Your task to perform on an android device: What is the capital of the United Kingdom? Image 0: 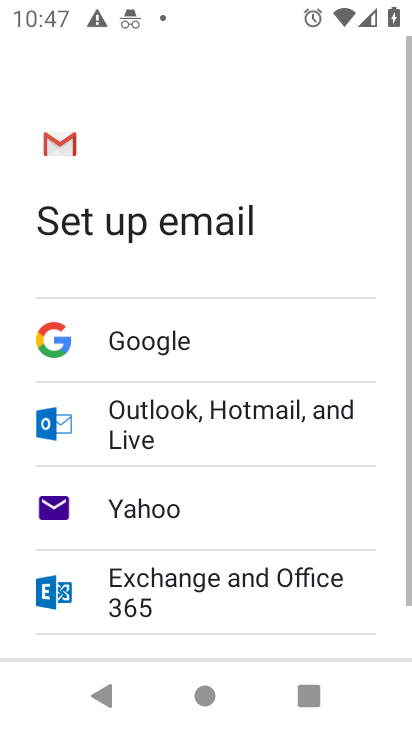
Step 0: press home button
Your task to perform on an android device: What is the capital of the United Kingdom? Image 1: 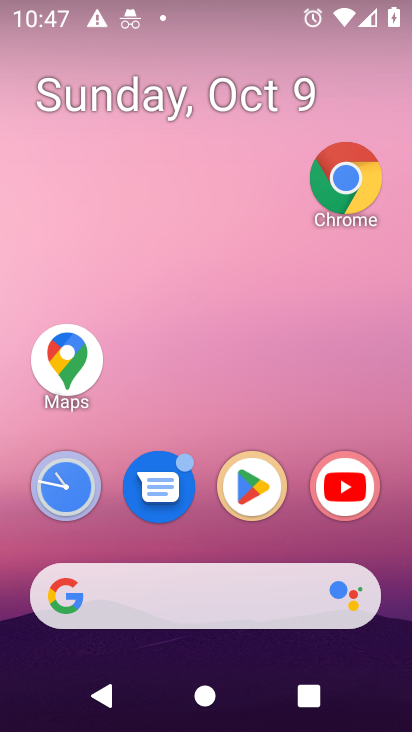
Step 1: drag from (264, 512) to (268, 325)
Your task to perform on an android device: What is the capital of the United Kingdom? Image 2: 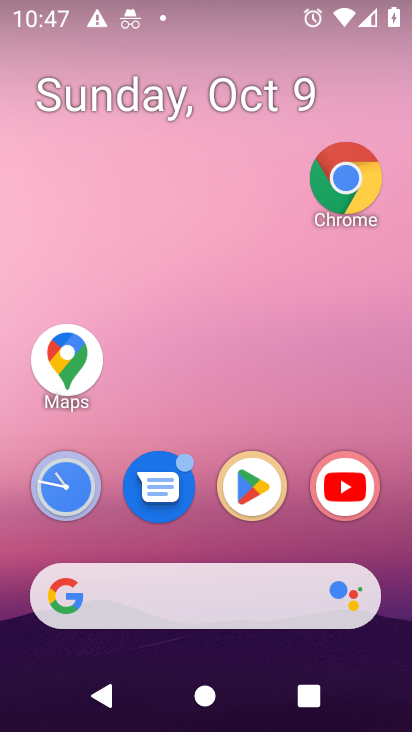
Step 2: drag from (226, 634) to (238, 314)
Your task to perform on an android device: What is the capital of the United Kingdom? Image 3: 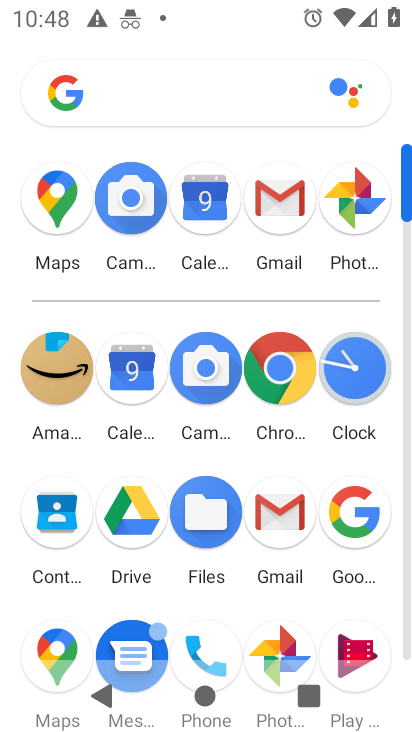
Step 3: click (384, 548)
Your task to perform on an android device: What is the capital of the United Kingdom? Image 4: 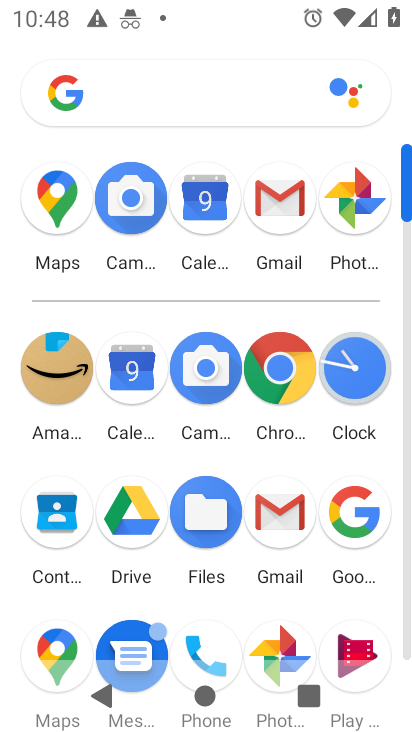
Step 4: click (361, 488)
Your task to perform on an android device: What is the capital of the United Kingdom? Image 5: 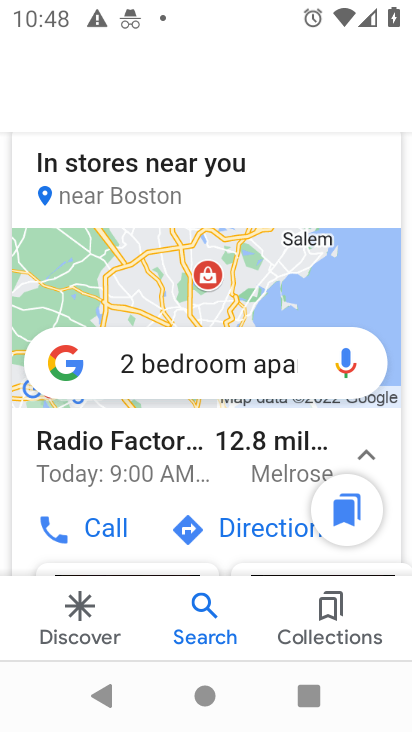
Step 5: click (101, 617)
Your task to perform on an android device: What is the capital of the United Kingdom? Image 6: 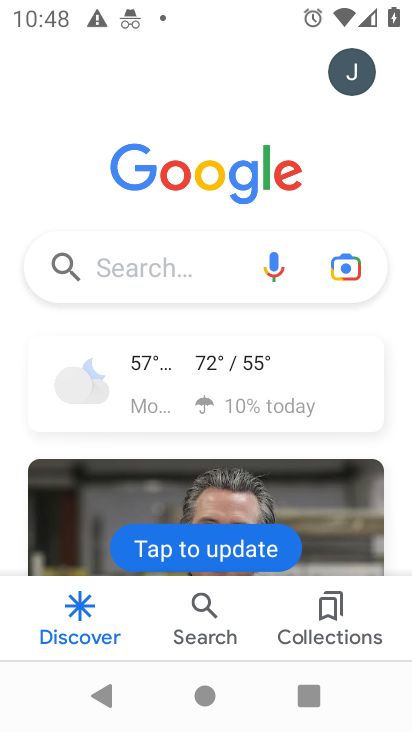
Step 6: click (149, 282)
Your task to perform on an android device: What is the capital of the United Kingdom? Image 7: 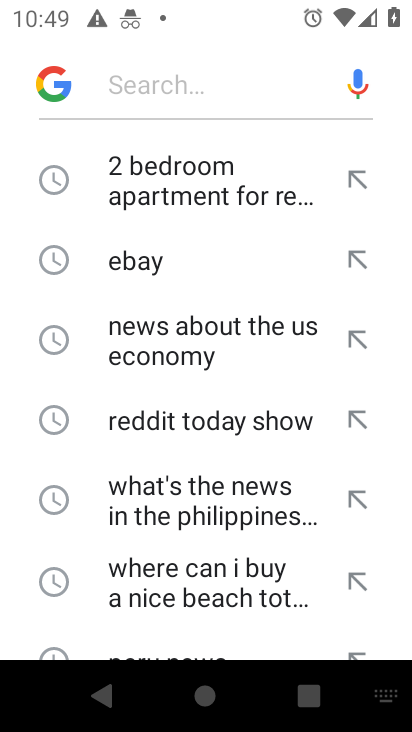
Step 7: type "united kingdom capital"
Your task to perform on an android device: What is the capital of the United Kingdom? Image 8: 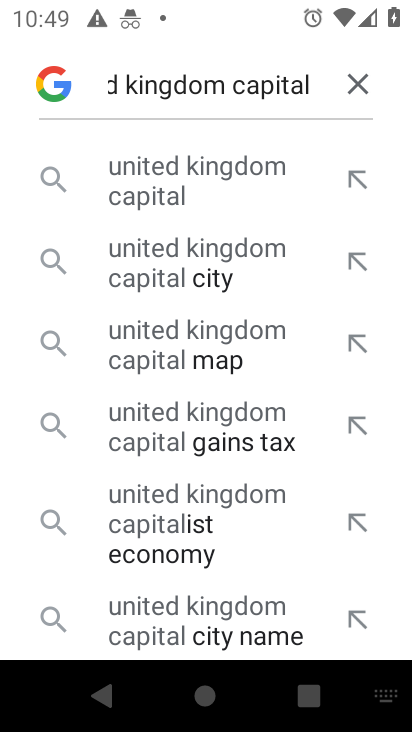
Step 8: click (229, 163)
Your task to perform on an android device: What is the capital of the United Kingdom? Image 9: 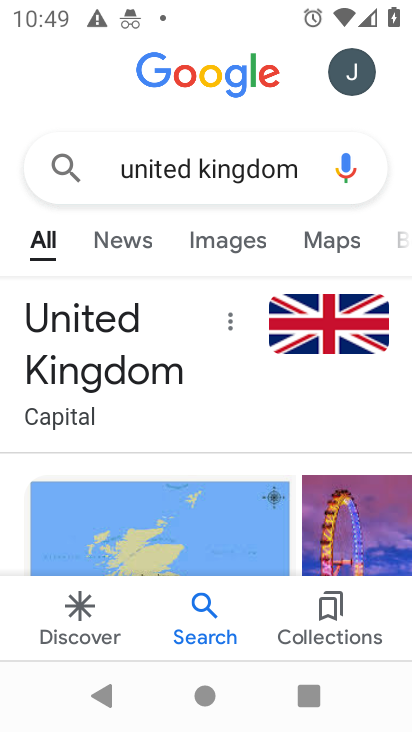
Step 9: task complete